Your task to perform on an android device: Go to sound settings Image 0: 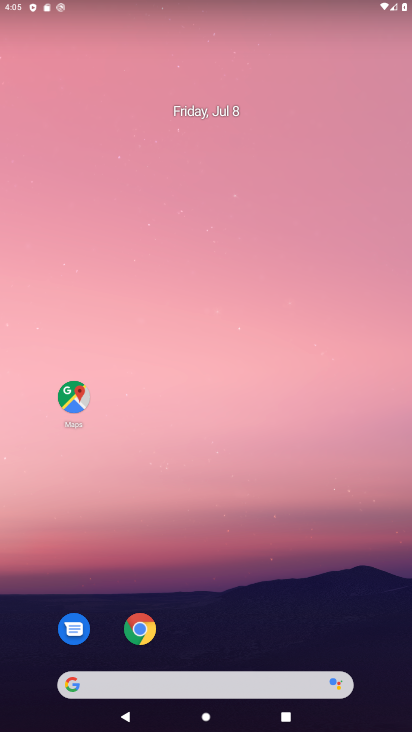
Step 0: drag from (311, 629) to (285, 87)
Your task to perform on an android device: Go to sound settings Image 1: 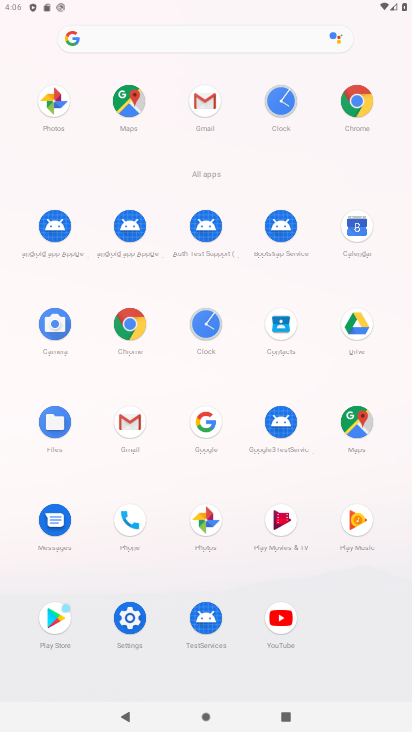
Step 1: click (145, 619)
Your task to perform on an android device: Go to sound settings Image 2: 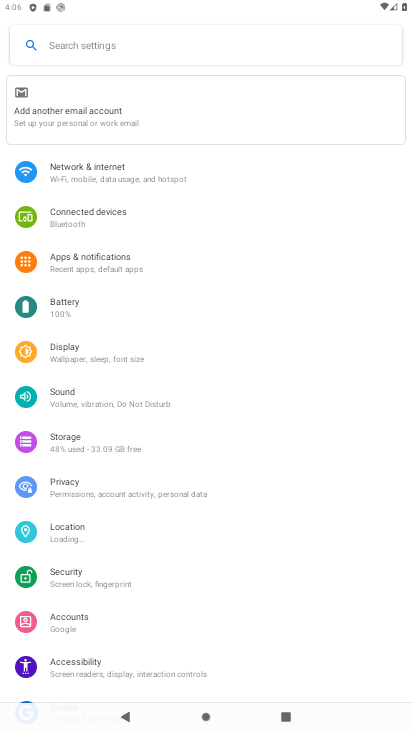
Step 2: click (174, 404)
Your task to perform on an android device: Go to sound settings Image 3: 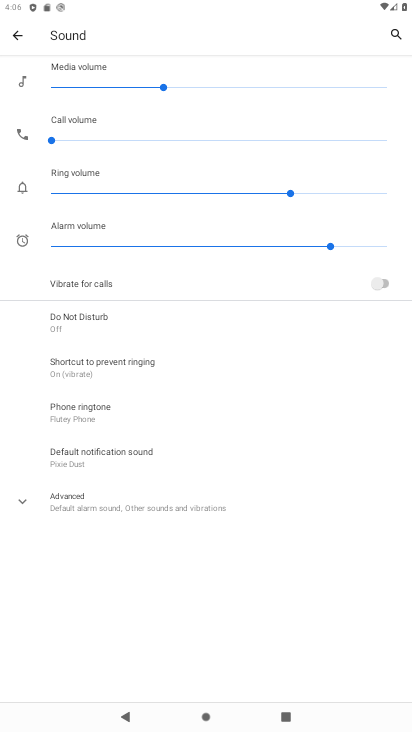
Step 3: task complete